Your task to perform on an android device: turn on showing notifications on the lock screen Image 0: 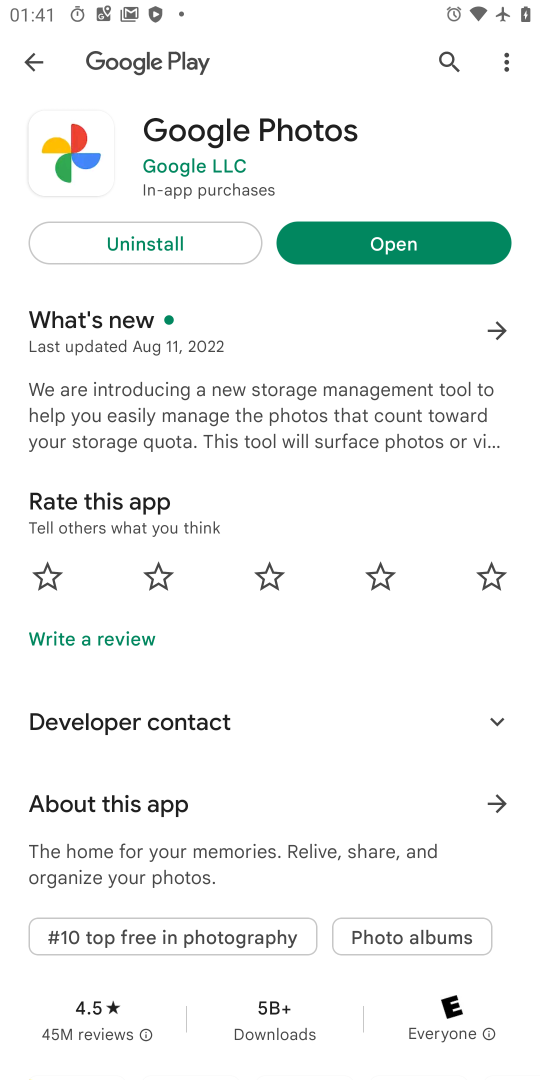
Step 0: press home button
Your task to perform on an android device: turn on showing notifications on the lock screen Image 1: 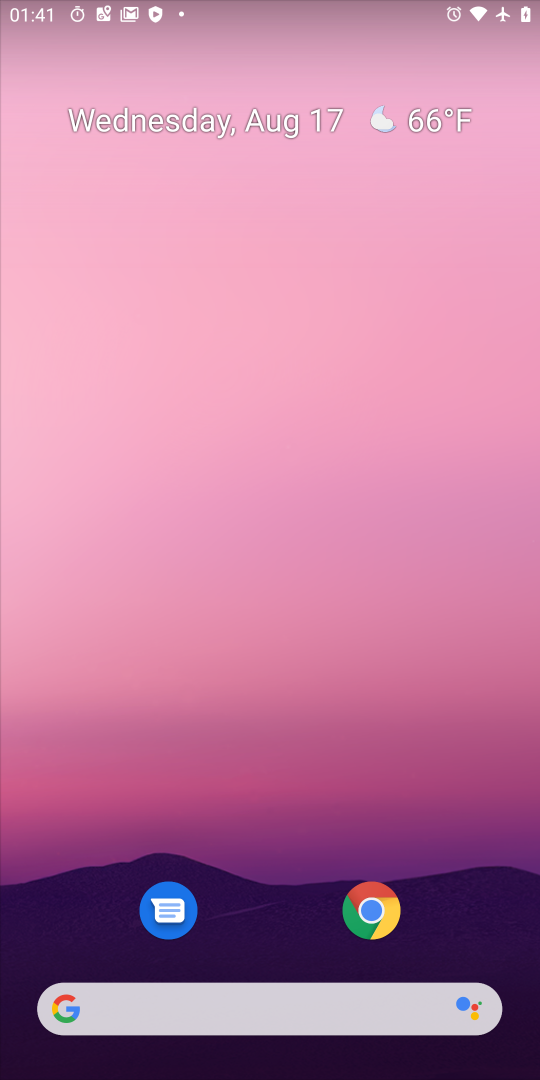
Step 1: drag from (267, 908) to (342, 123)
Your task to perform on an android device: turn on showing notifications on the lock screen Image 2: 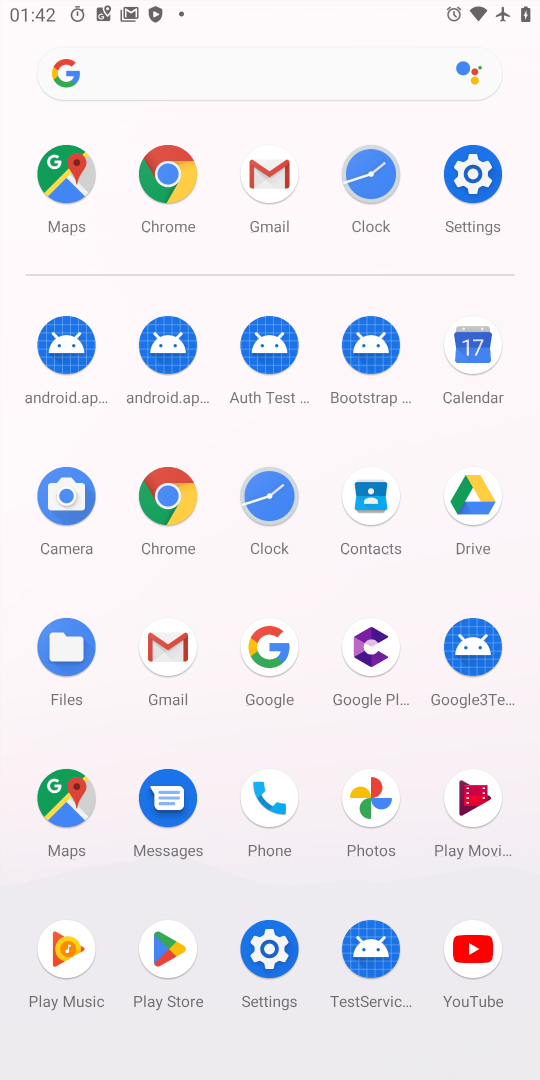
Step 2: click (277, 952)
Your task to perform on an android device: turn on showing notifications on the lock screen Image 3: 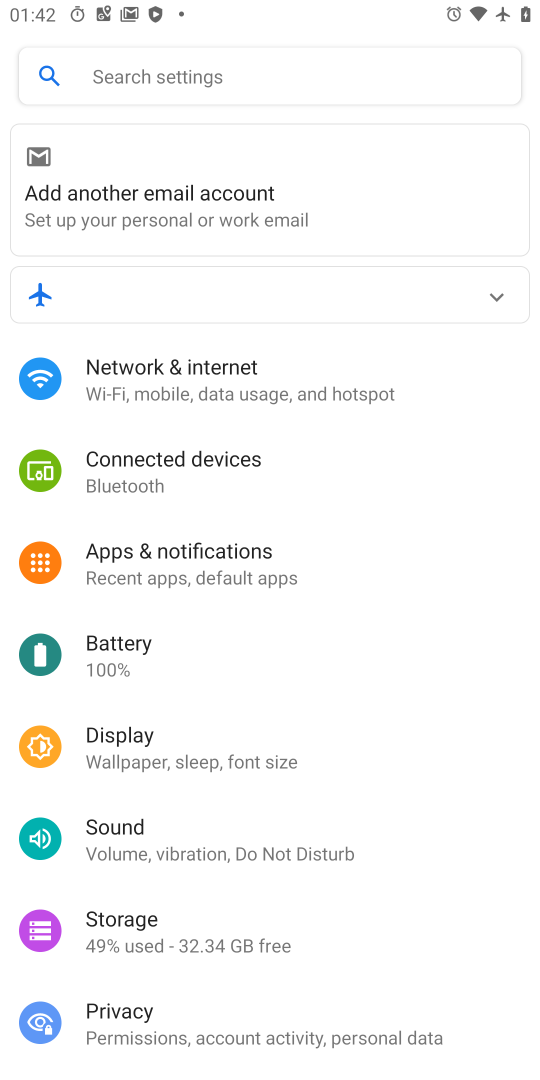
Step 3: click (176, 566)
Your task to perform on an android device: turn on showing notifications on the lock screen Image 4: 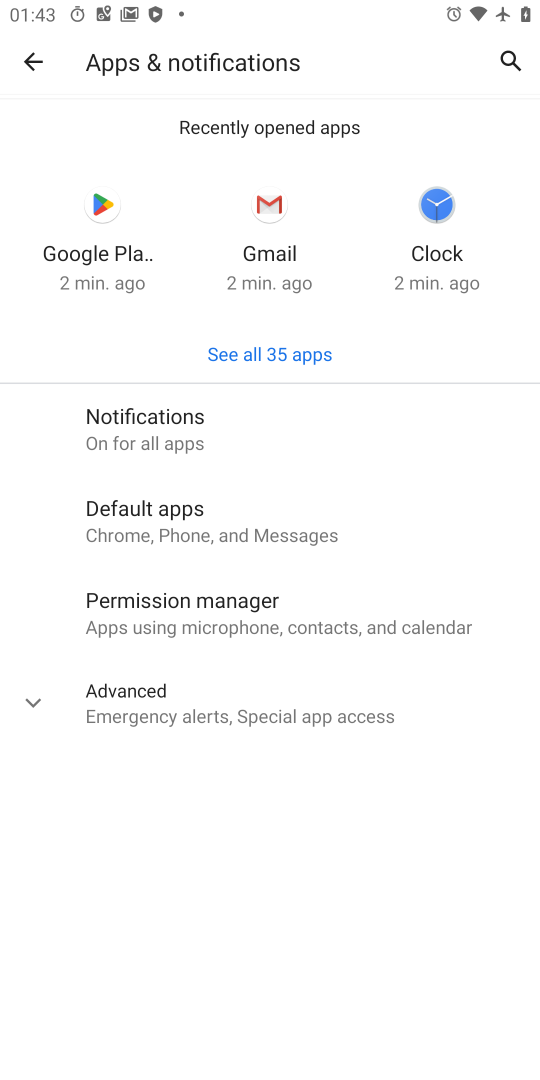
Step 4: click (187, 416)
Your task to perform on an android device: turn on showing notifications on the lock screen Image 5: 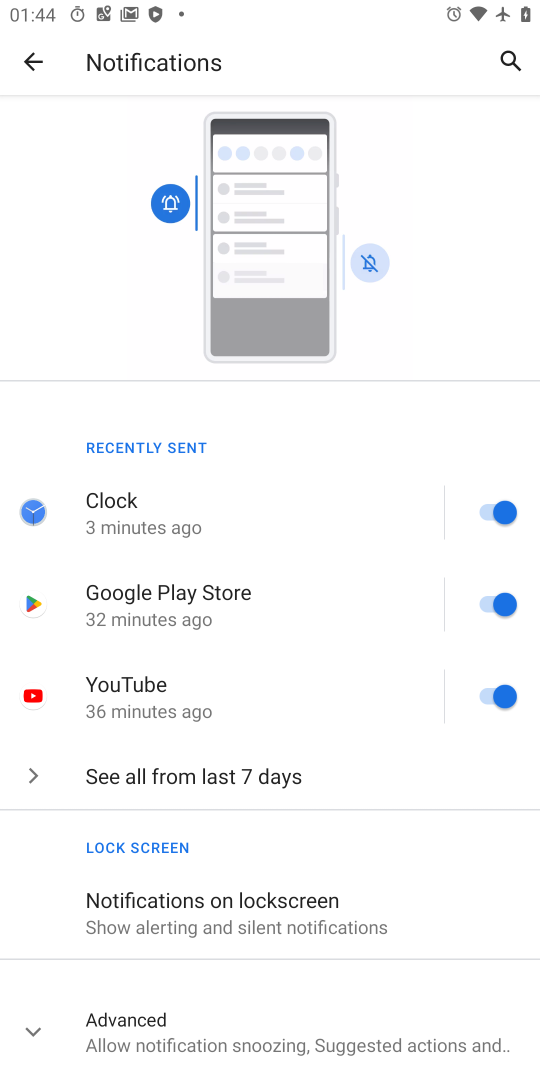
Step 5: click (235, 908)
Your task to perform on an android device: turn on showing notifications on the lock screen Image 6: 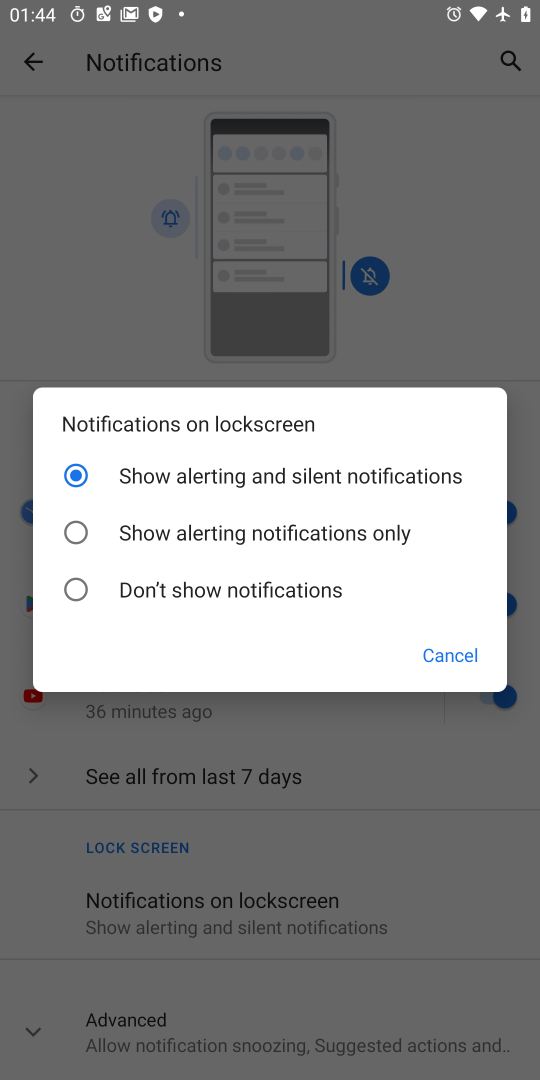
Step 6: task complete